Your task to perform on an android device: check google app version Image 0: 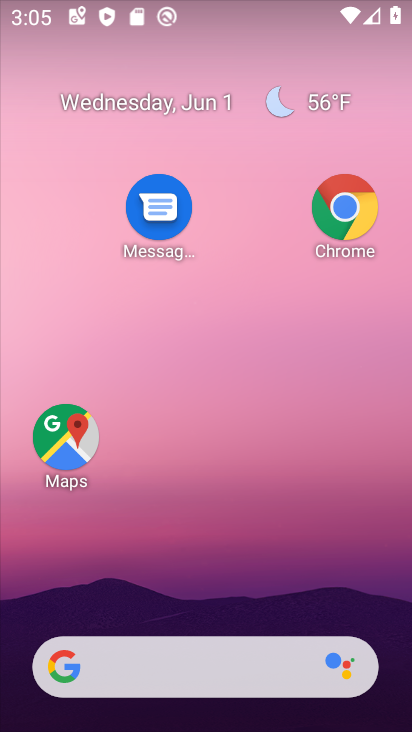
Step 0: drag from (189, 569) to (214, 196)
Your task to perform on an android device: check google app version Image 1: 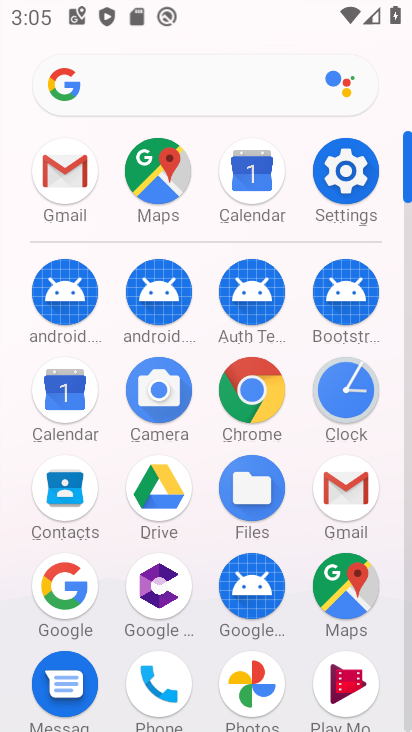
Step 1: click (68, 577)
Your task to perform on an android device: check google app version Image 2: 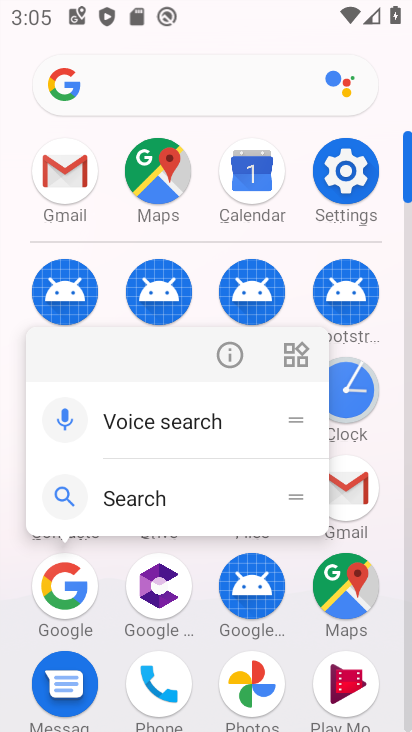
Step 2: click (229, 354)
Your task to perform on an android device: check google app version Image 3: 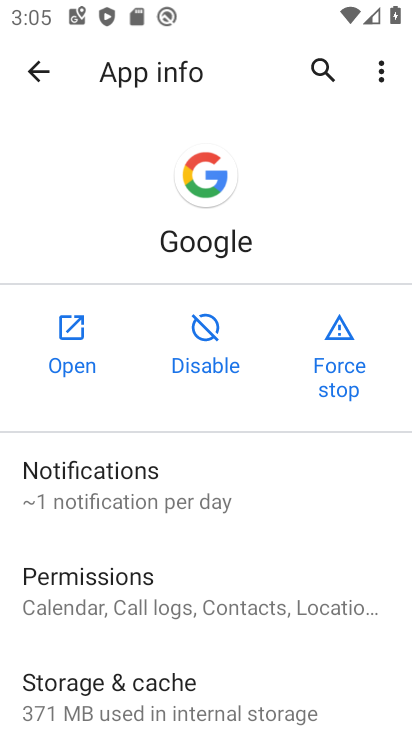
Step 3: click (61, 347)
Your task to perform on an android device: check google app version Image 4: 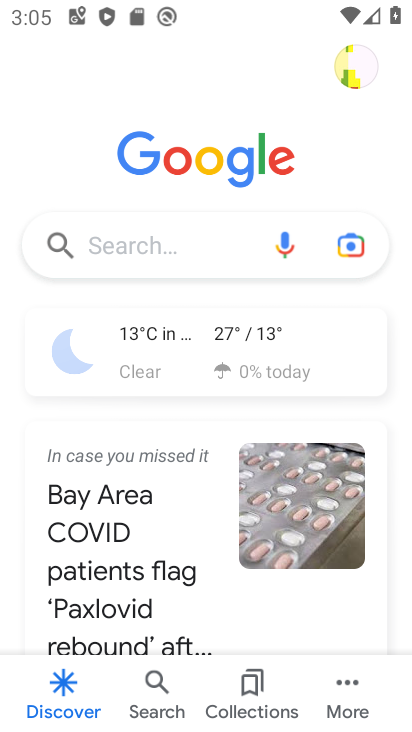
Step 4: click (340, 684)
Your task to perform on an android device: check google app version Image 5: 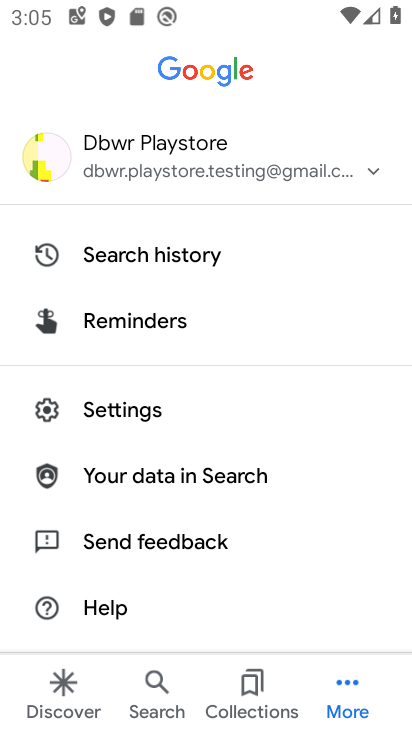
Step 5: drag from (180, 586) to (211, 253)
Your task to perform on an android device: check google app version Image 6: 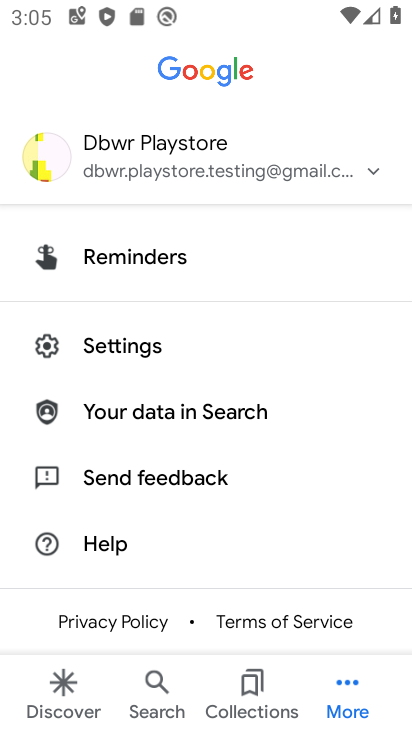
Step 6: click (133, 352)
Your task to perform on an android device: check google app version Image 7: 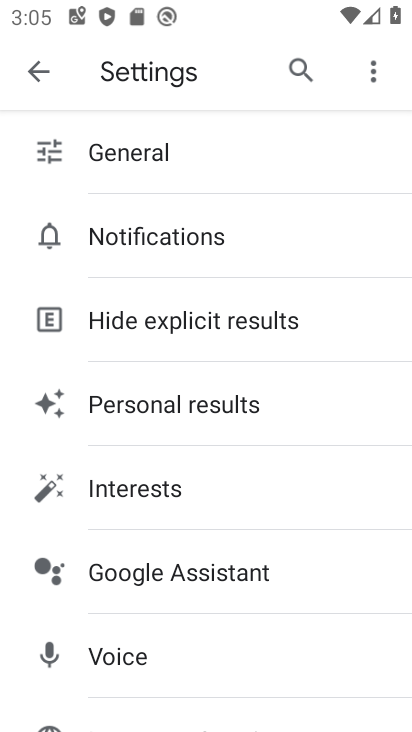
Step 7: drag from (186, 596) to (308, 28)
Your task to perform on an android device: check google app version Image 8: 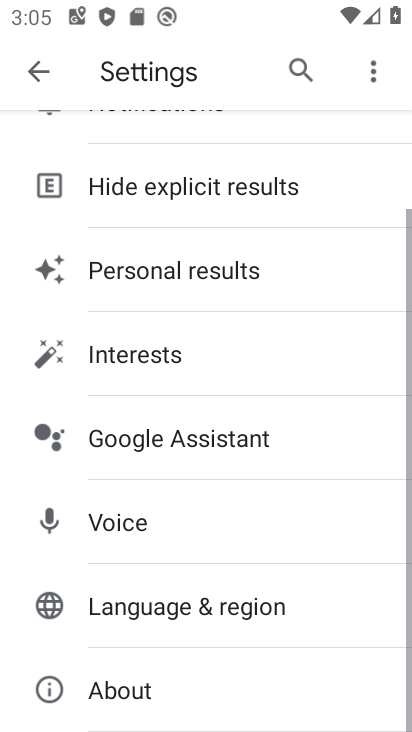
Step 8: click (183, 669)
Your task to perform on an android device: check google app version Image 9: 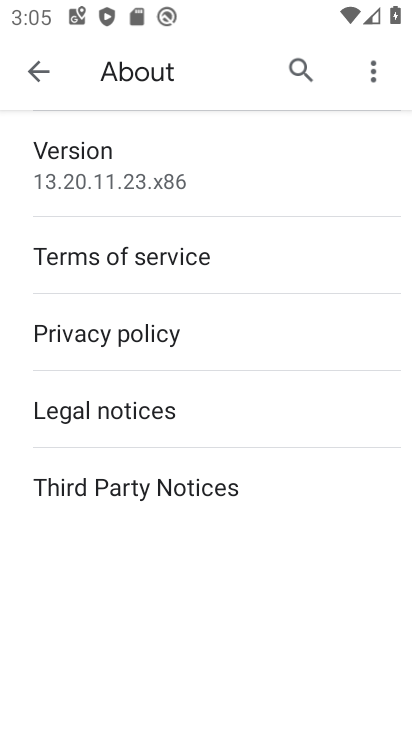
Step 9: click (199, 188)
Your task to perform on an android device: check google app version Image 10: 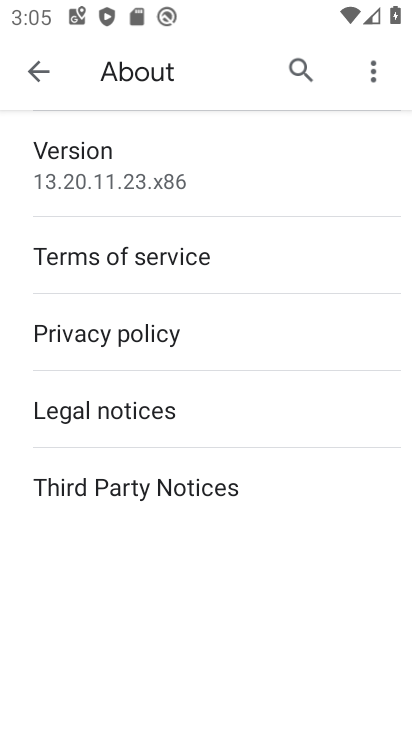
Step 10: task complete